Your task to perform on an android device: Open Google Image 0: 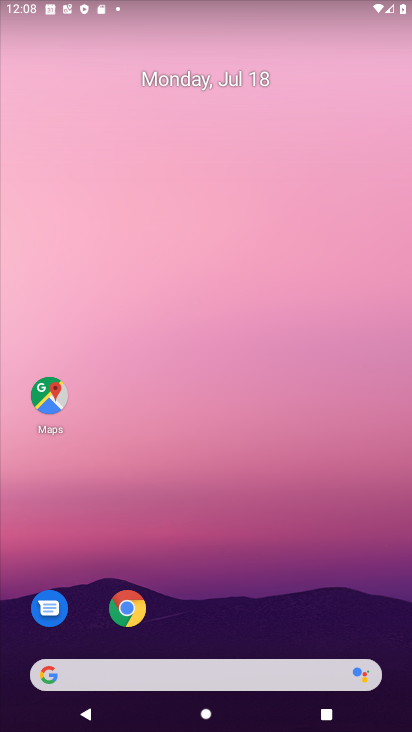
Step 0: drag from (281, 621) to (308, 24)
Your task to perform on an android device: Open Google Image 1: 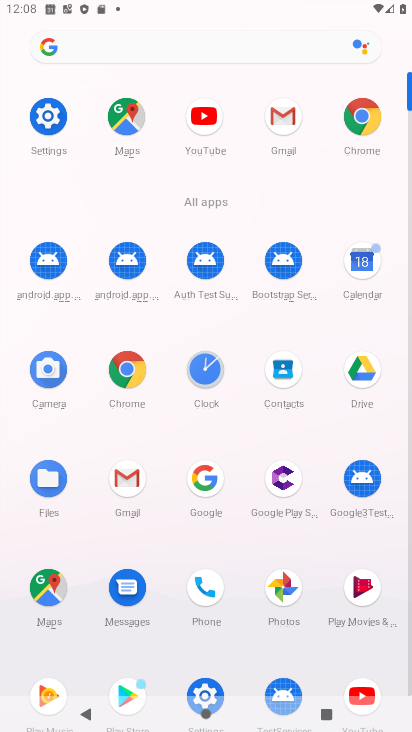
Step 1: click (211, 493)
Your task to perform on an android device: Open Google Image 2: 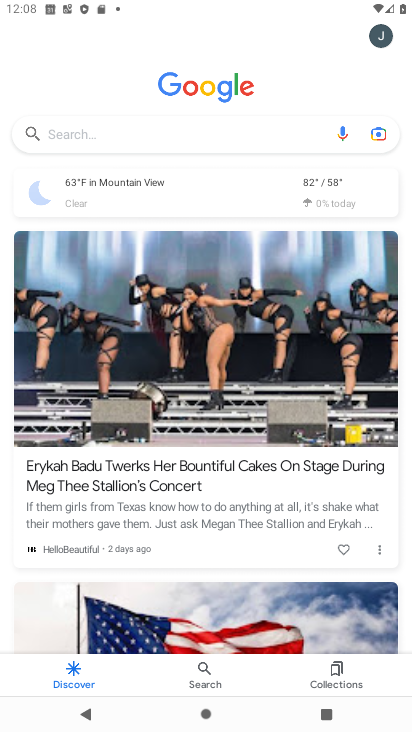
Step 2: task complete